Your task to perform on an android device: change notification settings in the gmail app Image 0: 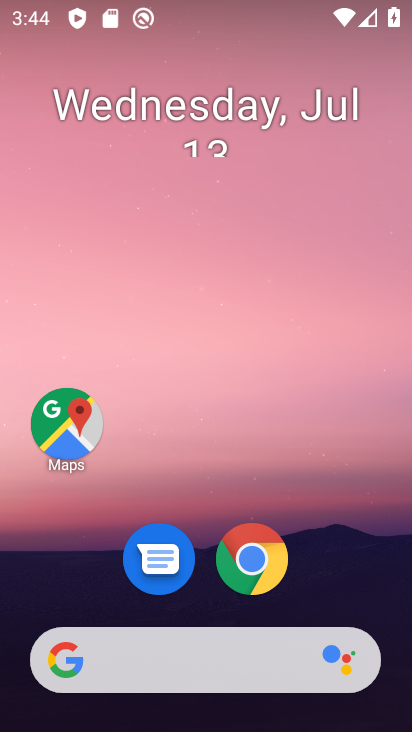
Step 0: drag from (254, 578) to (325, 183)
Your task to perform on an android device: change notification settings in the gmail app Image 1: 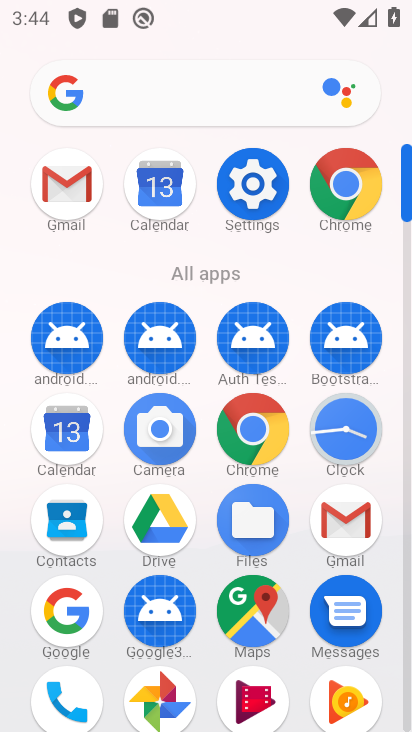
Step 1: click (343, 521)
Your task to perform on an android device: change notification settings in the gmail app Image 2: 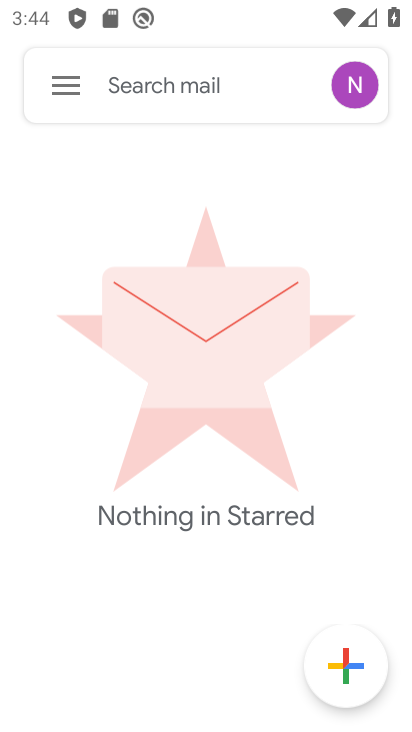
Step 2: click (62, 90)
Your task to perform on an android device: change notification settings in the gmail app Image 3: 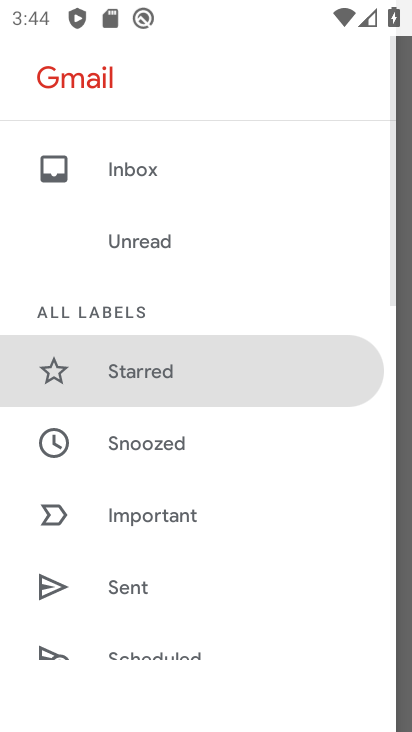
Step 3: drag from (178, 651) to (234, 215)
Your task to perform on an android device: change notification settings in the gmail app Image 4: 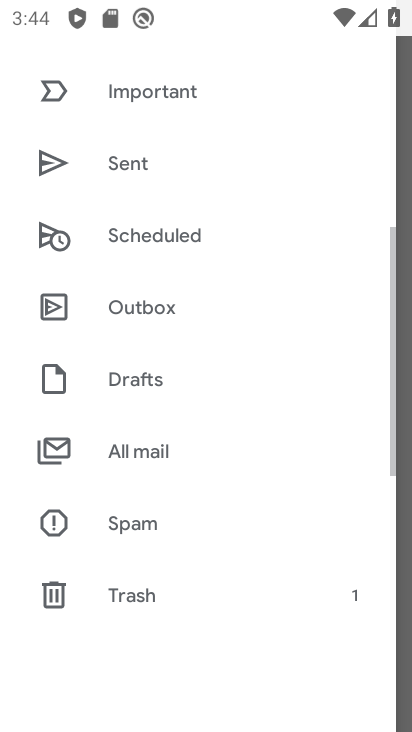
Step 4: drag from (207, 613) to (244, 270)
Your task to perform on an android device: change notification settings in the gmail app Image 5: 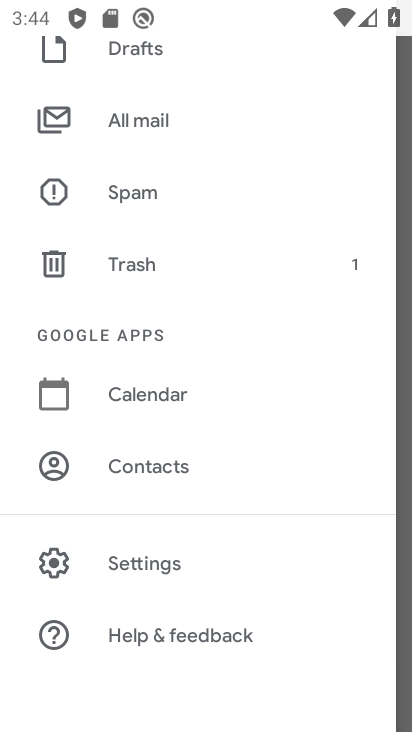
Step 5: click (164, 562)
Your task to perform on an android device: change notification settings in the gmail app Image 6: 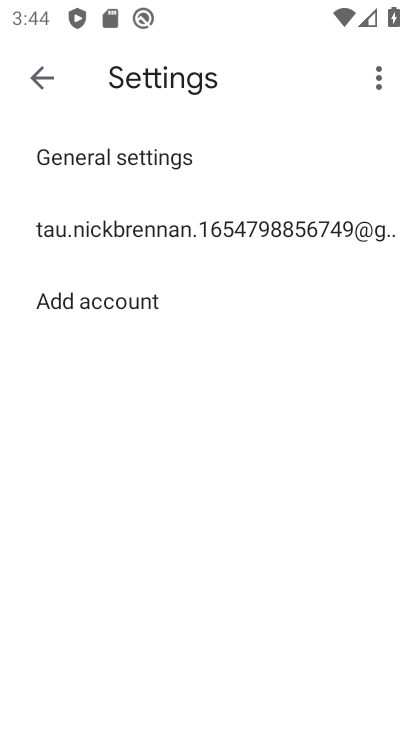
Step 6: click (167, 226)
Your task to perform on an android device: change notification settings in the gmail app Image 7: 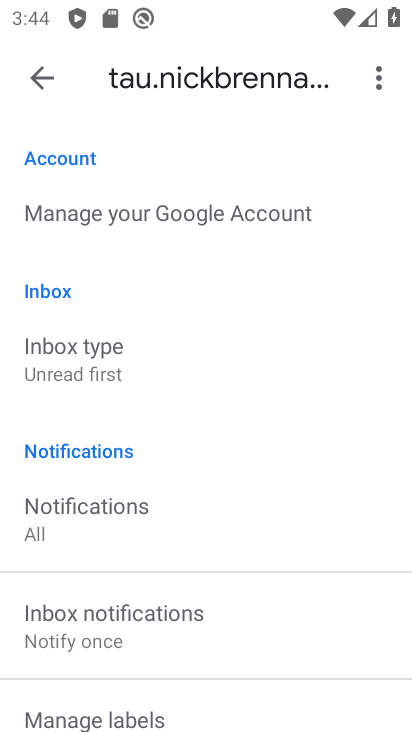
Step 7: drag from (138, 662) to (192, 307)
Your task to perform on an android device: change notification settings in the gmail app Image 8: 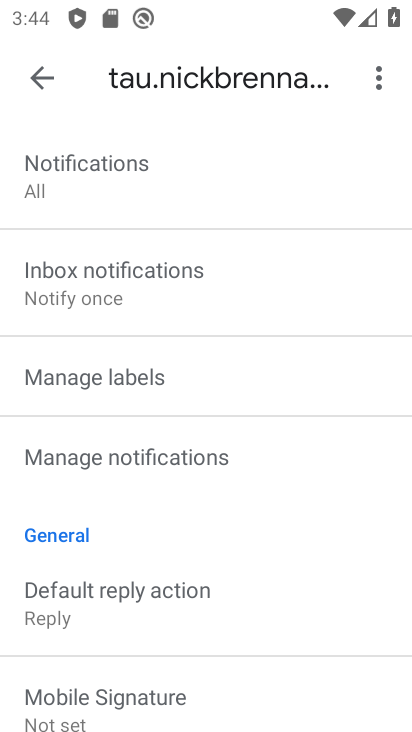
Step 8: click (143, 456)
Your task to perform on an android device: change notification settings in the gmail app Image 9: 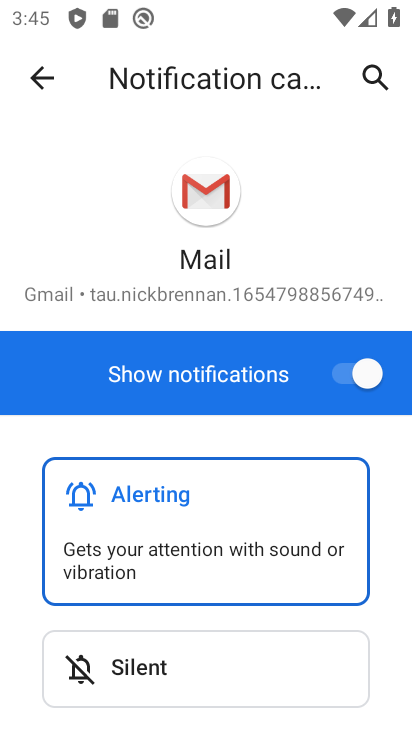
Step 9: click (351, 374)
Your task to perform on an android device: change notification settings in the gmail app Image 10: 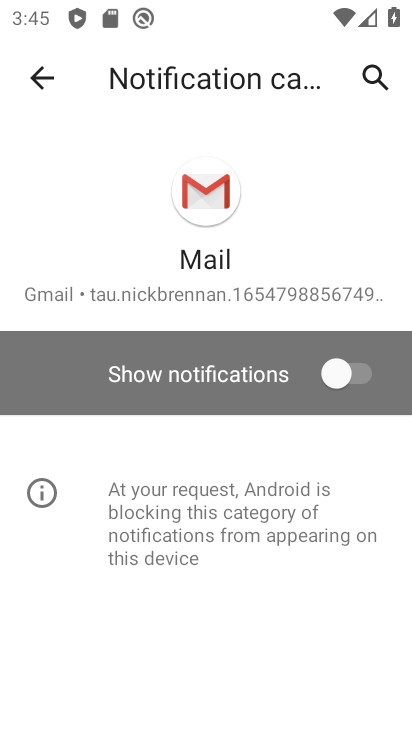
Step 10: task complete